Your task to perform on an android device: turn off picture-in-picture Image 0: 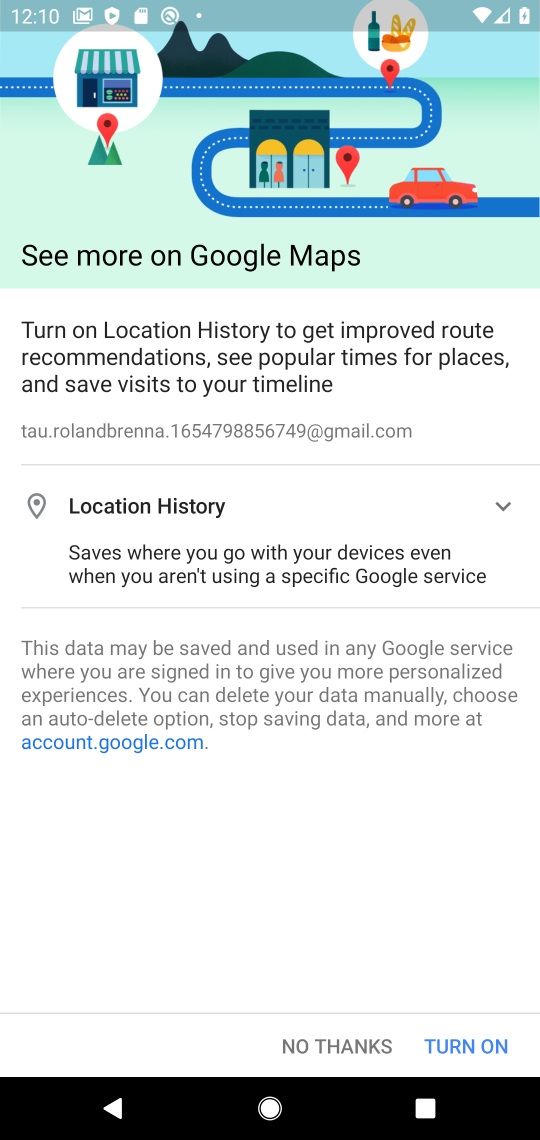
Step 0: press home button
Your task to perform on an android device: turn off picture-in-picture Image 1: 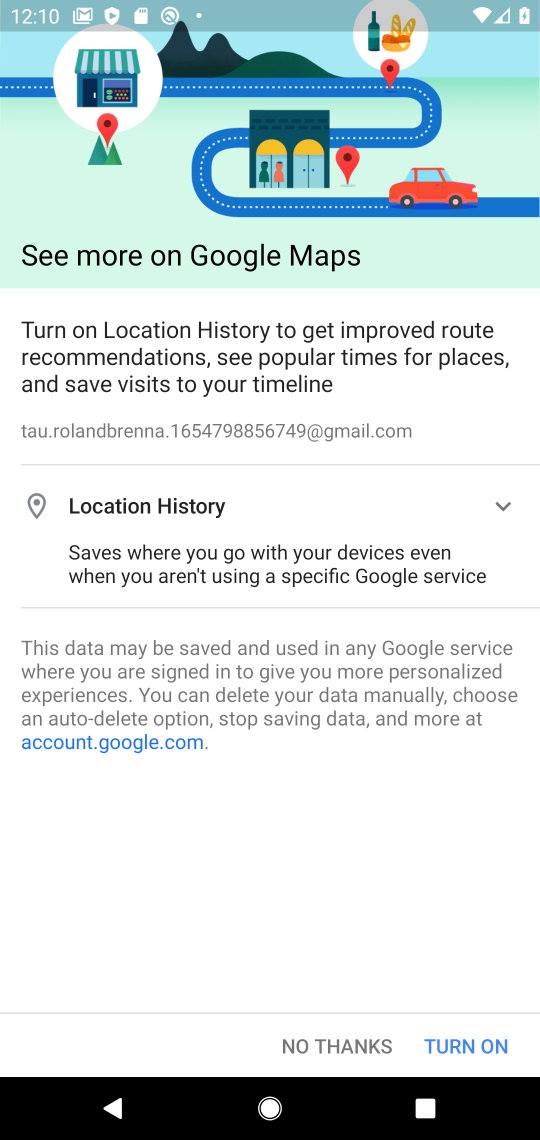
Step 1: press home button
Your task to perform on an android device: turn off picture-in-picture Image 2: 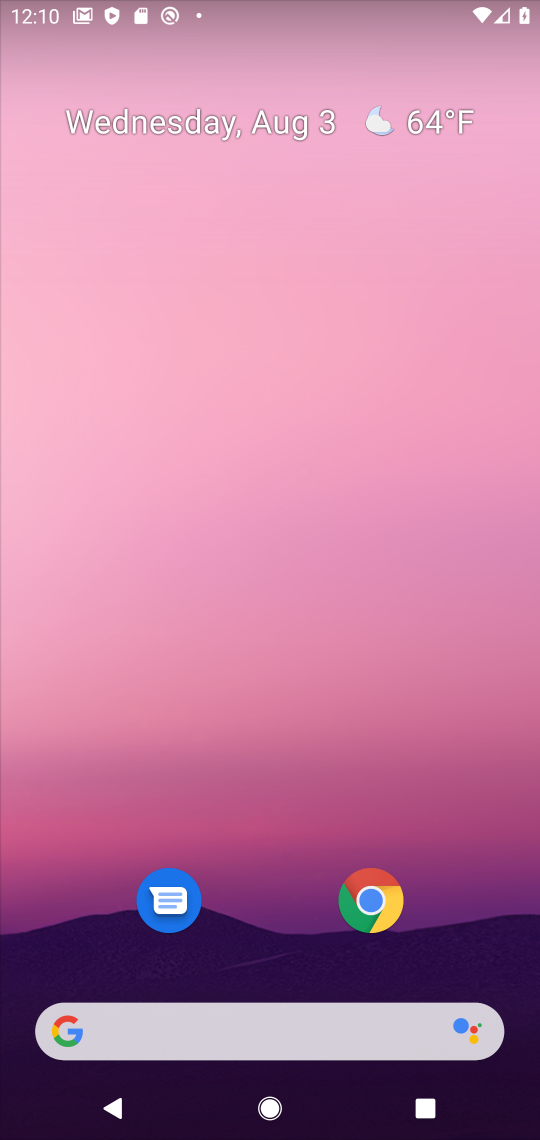
Step 2: click (361, 894)
Your task to perform on an android device: turn off picture-in-picture Image 3: 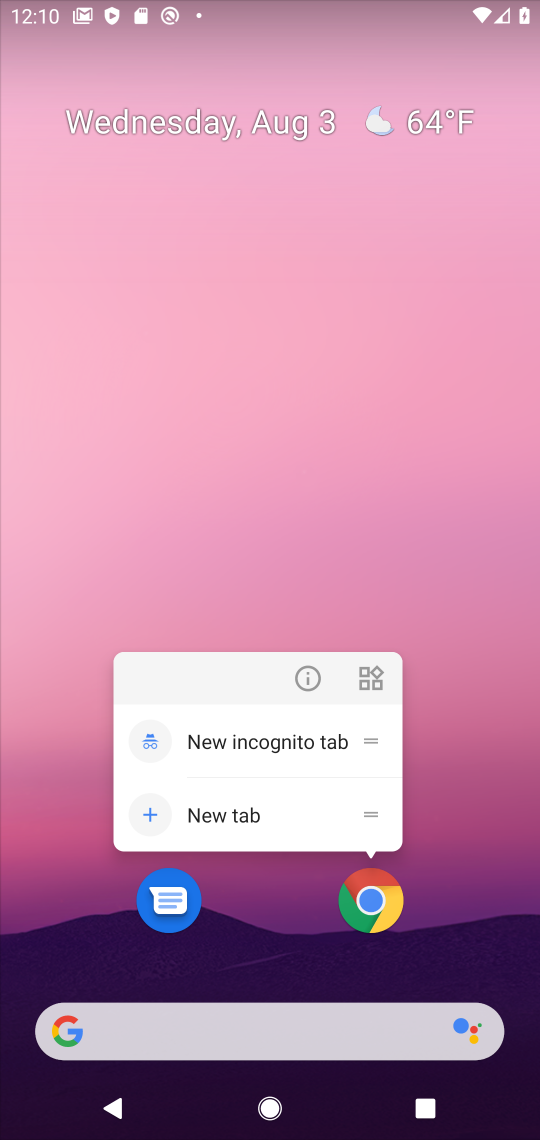
Step 3: click (311, 677)
Your task to perform on an android device: turn off picture-in-picture Image 4: 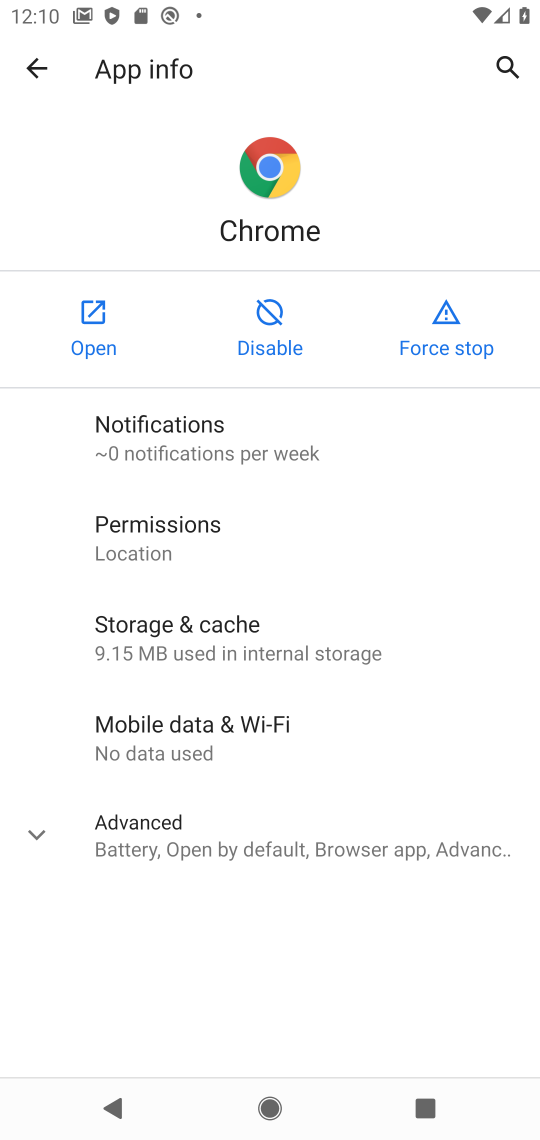
Step 4: click (166, 811)
Your task to perform on an android device: turn off picture-in-picture Image 5: 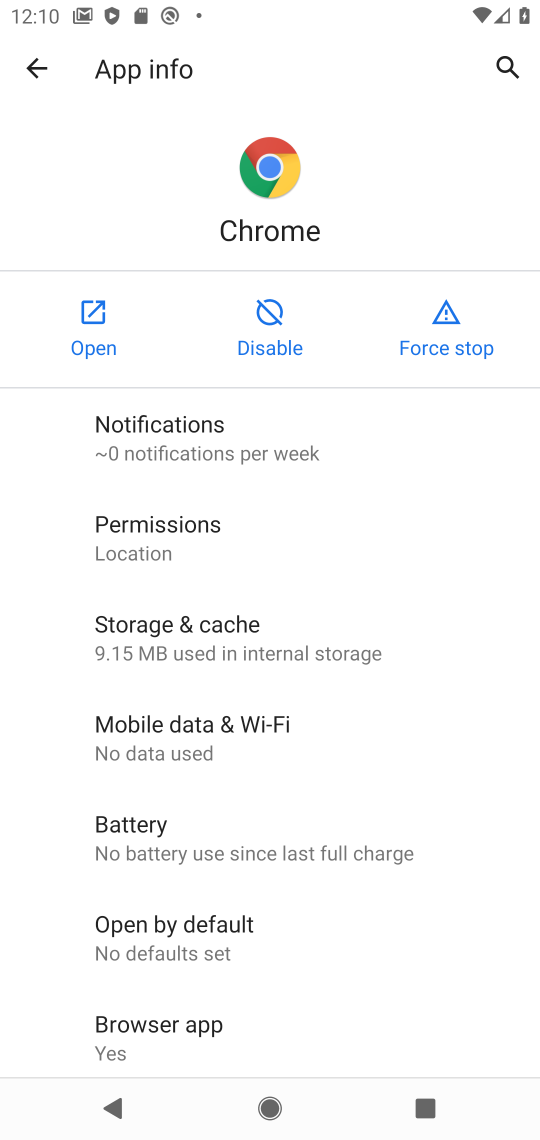
Step 5: drag from (385, 931) to (435, 264)
Your task to perform on an android device: turn off picture-in-picture Image 6: 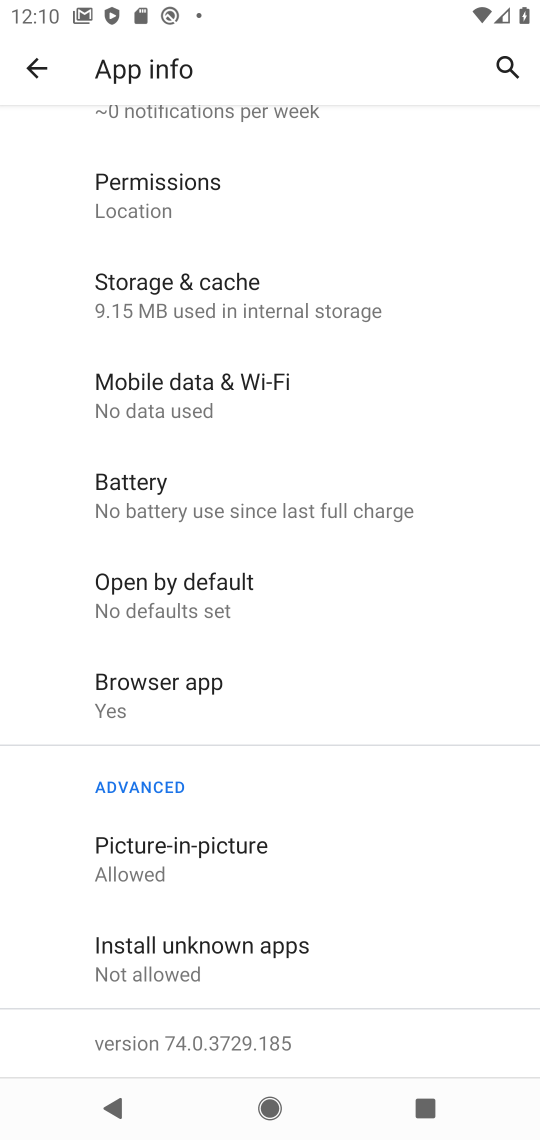
Step 6: click (169, 854)
Your task to perform on an android device: turn off picture-in-picture Image 7: 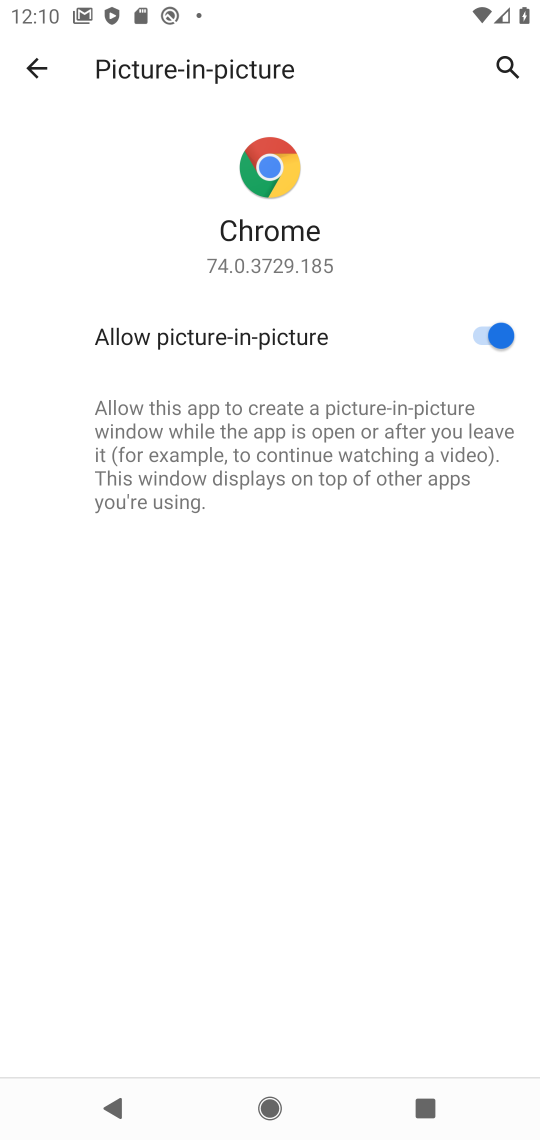
Step 7: click (496, 341)
Your task to perform on an android device: turn off picture-in-picture Image 8: 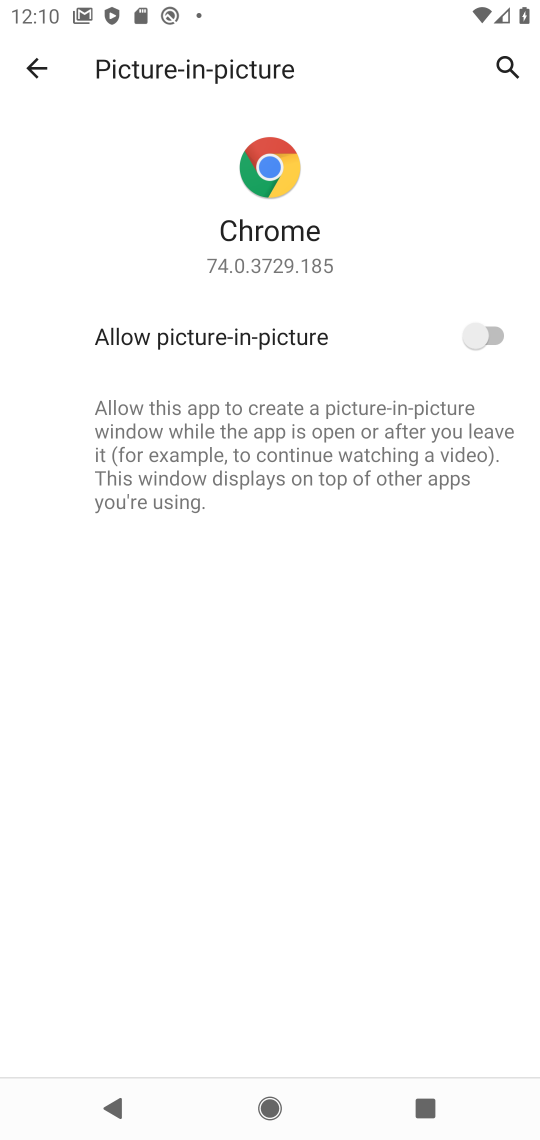
Step 8: task complete